Your task to perform on an android device: set an alarm Image 0: 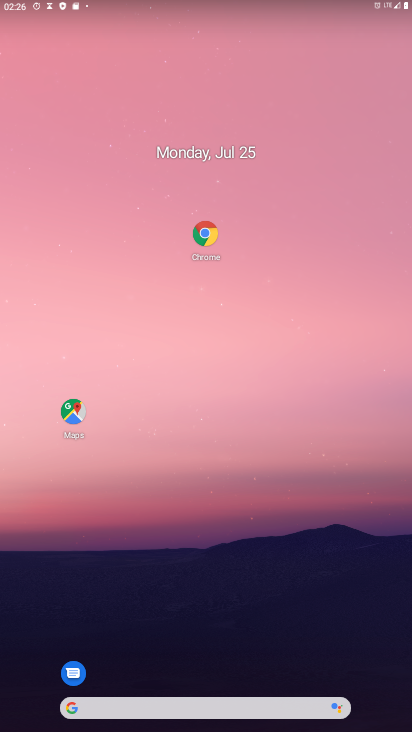
Step 0: drag from (92, 662) to (309, 13)
Your task to perform on an android device: set an alarm Image 1: 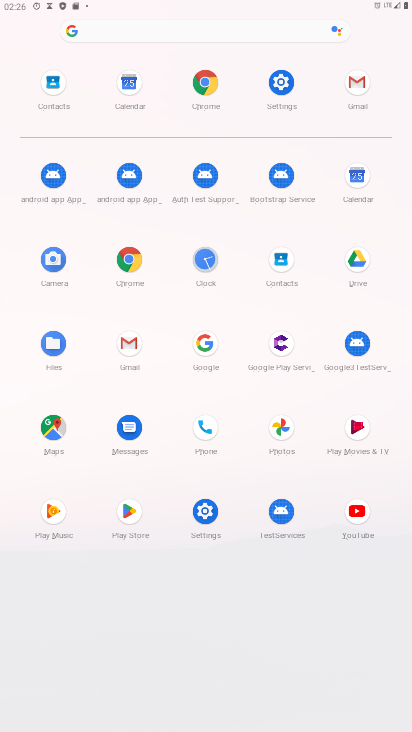
Step 1: click (204, 267)
Your task to perform on an android device: set an alarm Image 2: 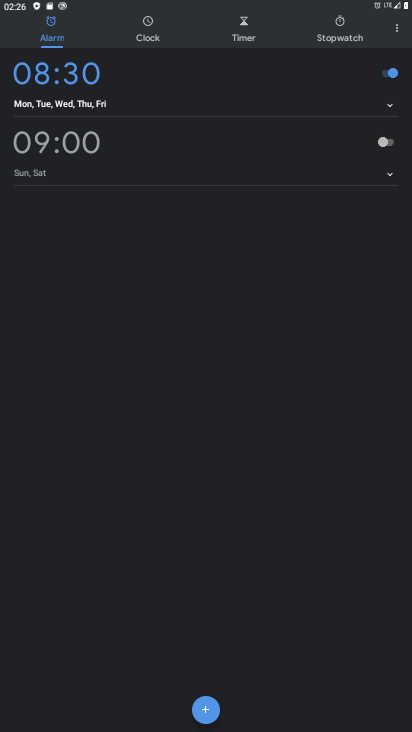
Step 2: click (393, 144)
Your task to perform on an android device: set an alarm Image 3: 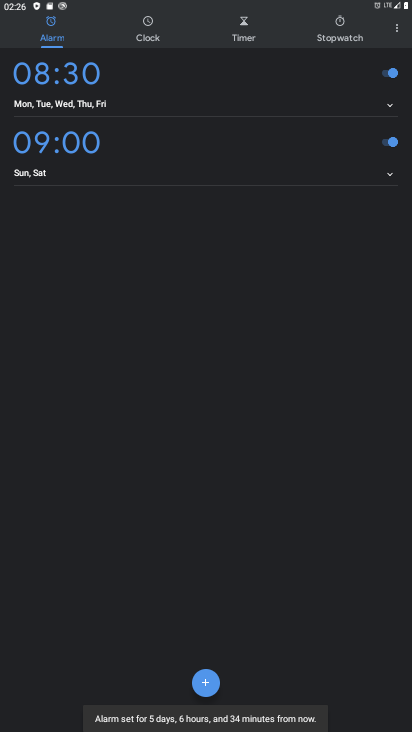
Step 3: task complete